Your task to perform on an android device: change text size in settings app Image 0: 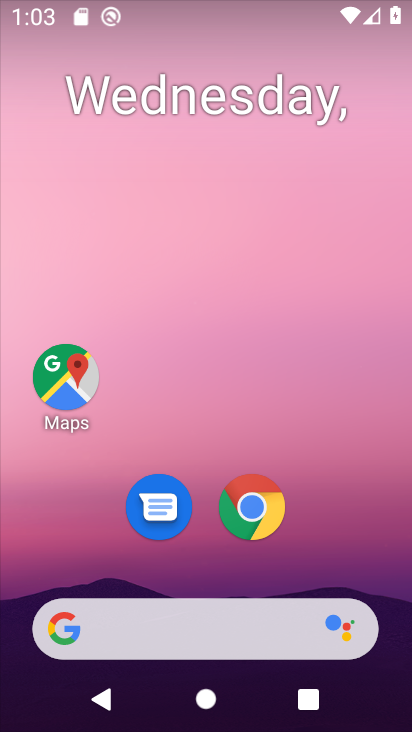
Step 0: drag from (144, 596) to (247, 77)
Your task to perform on an android device: change text size in settings app Image 1: 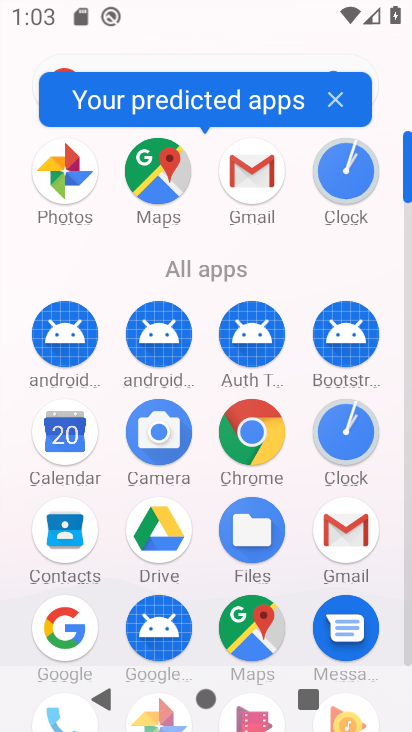
Step 1: drag from (190, 653) to (285, 269)
Your task to perform on an android device: change text size in settings app Image 2: 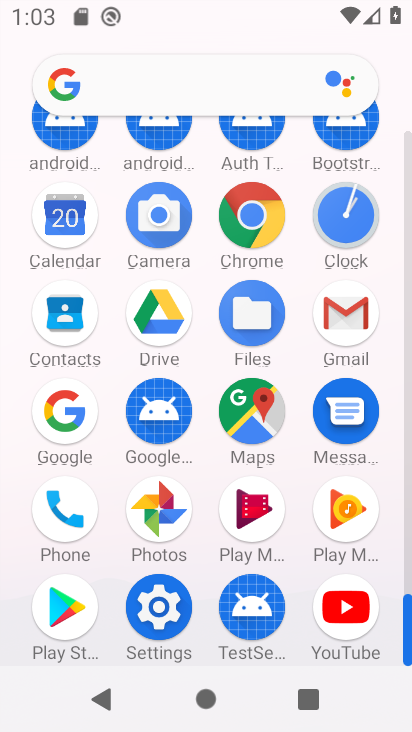
Step 2: click (165, 625)
Your task to perform on an android device: change text size in settings app Image 3: 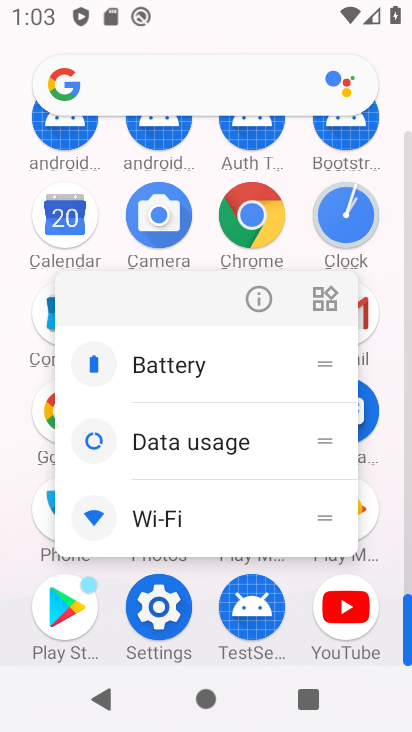
Step 3: click (165, 622)
Your task to perform on an android device: change text size in settings app Image 4: 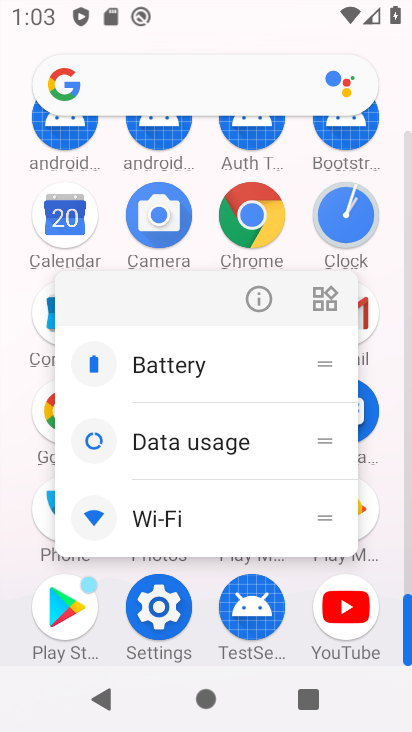
Step 4: click (166, 610)
Your task to perform on an android device: change text size in settings app Image 5: 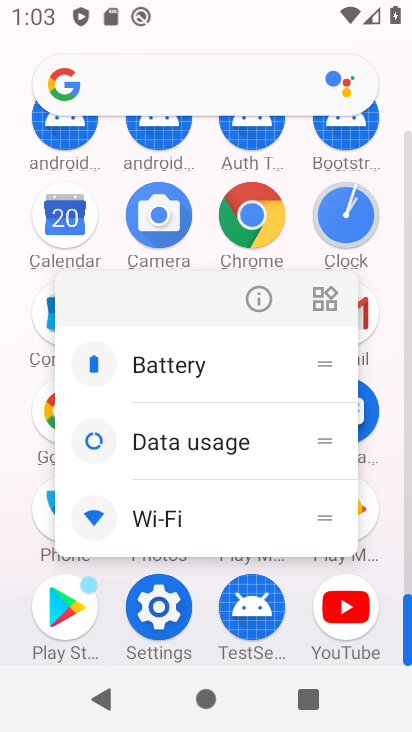
Step 5: click (161, 606)
Your task to perform on an android device: change text size in settings app Image 6: 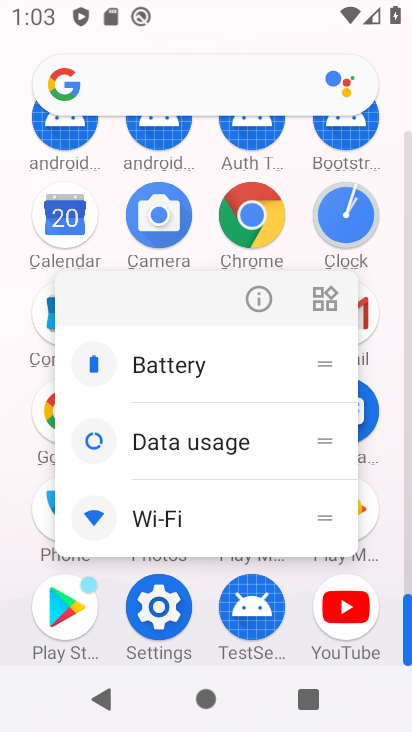
Step 6: click (153, 613)
Your task to perform on an android device: change text size in settings app Image 7: 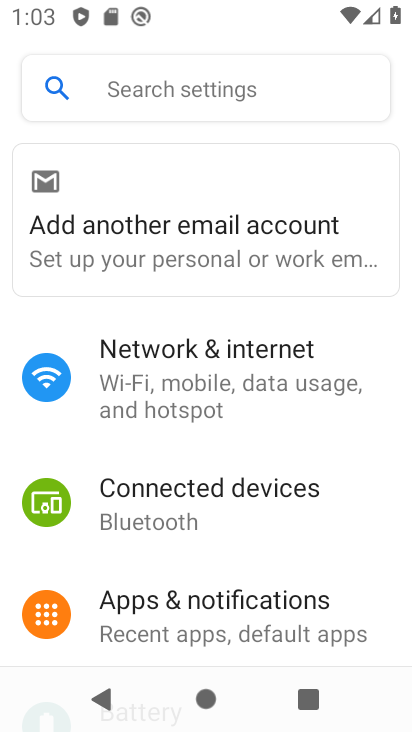
Step 7: drag from (269, 552) to (360, 242)
Your task to perform on an android device: change text size in settings app Image 8: 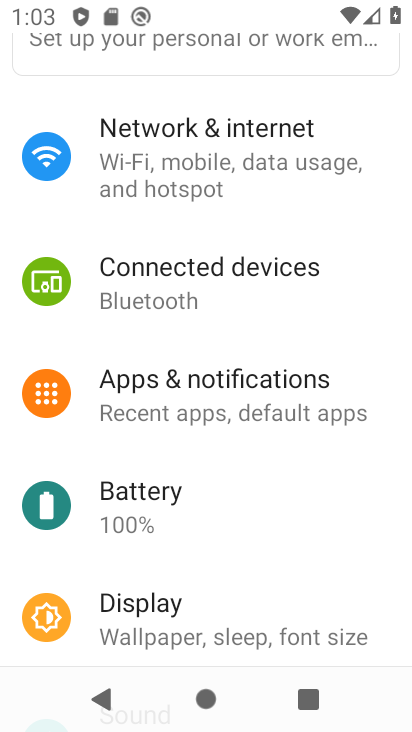
Step 8: click (156, 621)
Your task to perform on an android device: change text size in settings app Image 9: 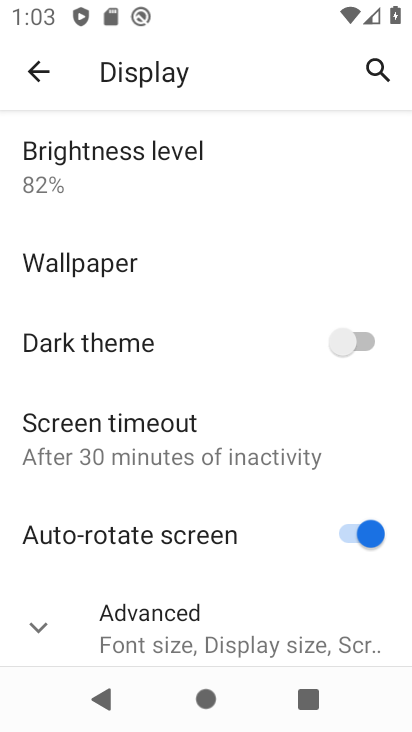
Step 9: click (212, 634)
Your task to perform on an android device: change text size in settings app Image 10: 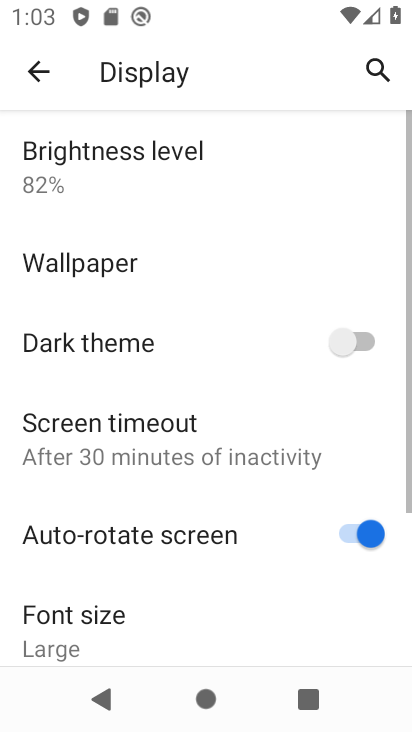
Step 10: click (214, 635)
Your task to perform on an android device: change text size in settings app Image 11: 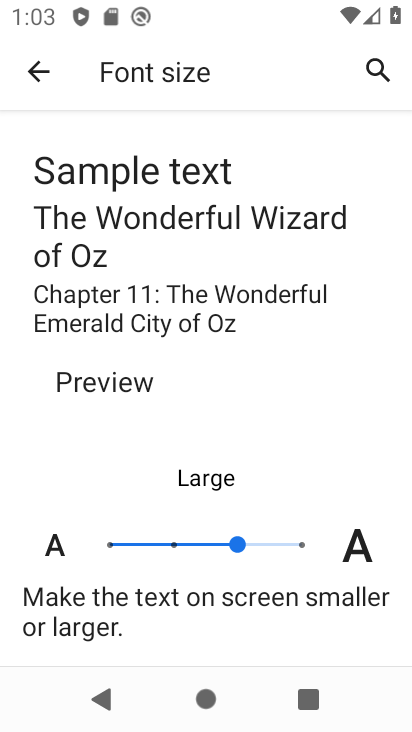
Step 11: click (174, 546)
Your task to perform on an android device: change text size in settings app Image 12: 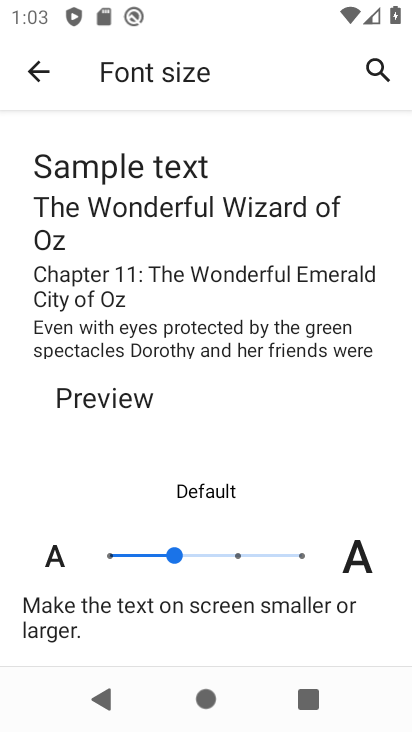
Step 12: task complete